Your task to perform on an android device: change the clock display to analog Image 0: 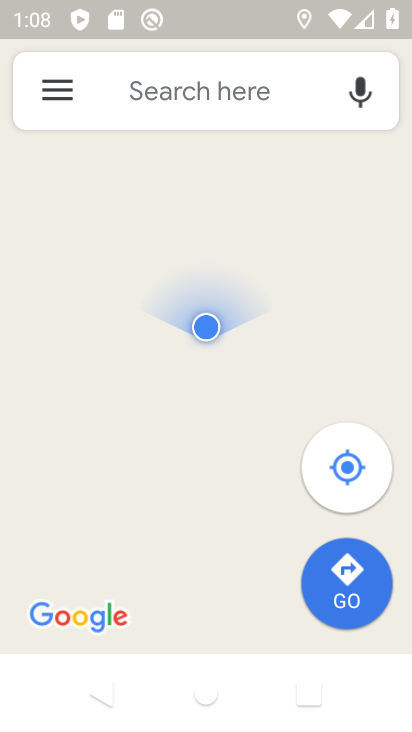
Step 0: press back button
Your task to perform on an android device: change the clock display to analog Image 1: 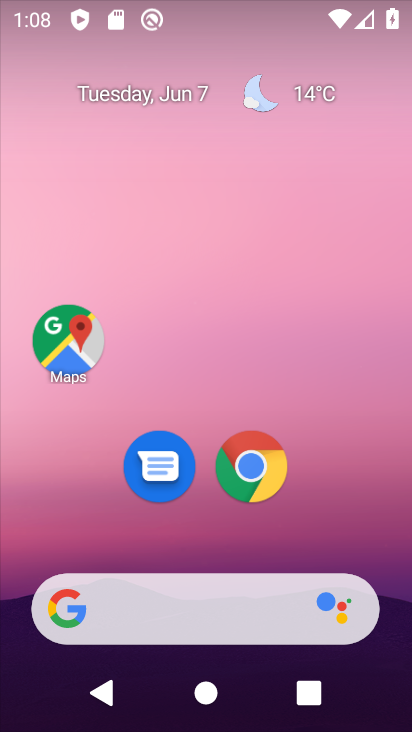
Step 1: drag from (188, 551) to (239, 126)
Your task to perform on an android device: change the clock display to analog Image 2: 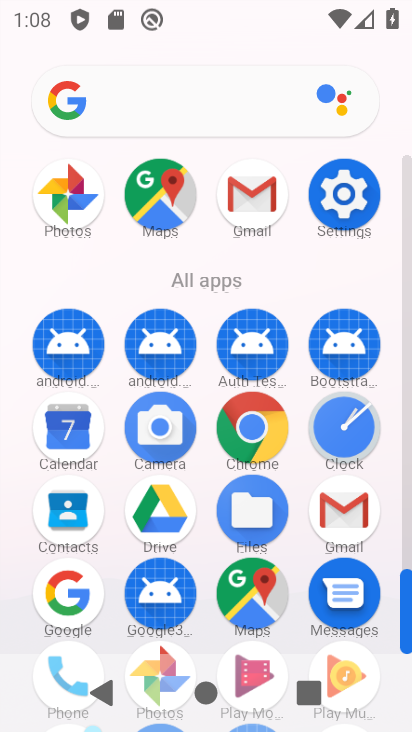
Step 2: click (340, 430)
Your task to perform on an android device: change the clock display to analog Image 3: 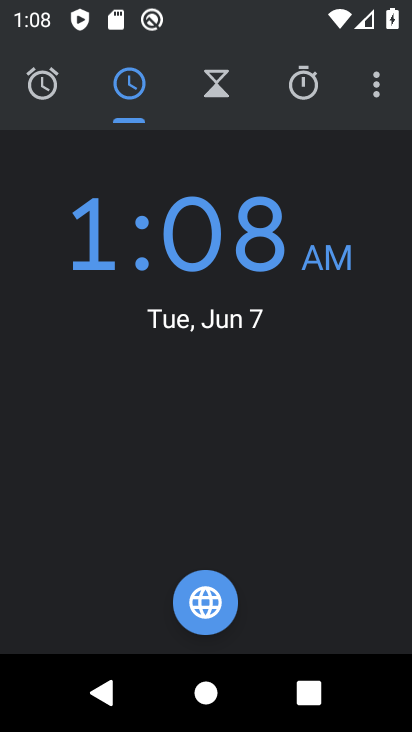
Step 3: click (370, 81)
Your task to perform on an android device: change the clock display to analog Image 4: 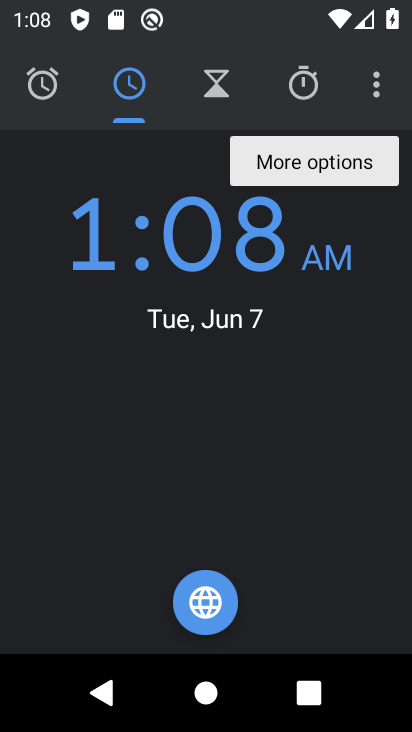
Step 4: click (371, 82)
Your task to perform on an android device: change the clock display to analog Image 5: 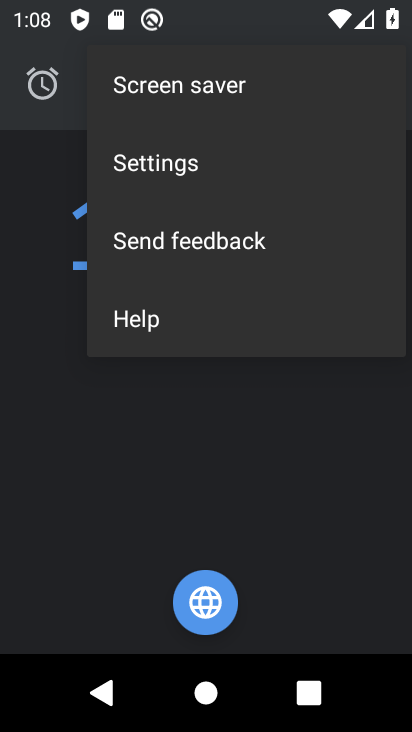
Step 5: click (190, 154)
Your task to perform on an android device: change the clock display to analog Image 6: 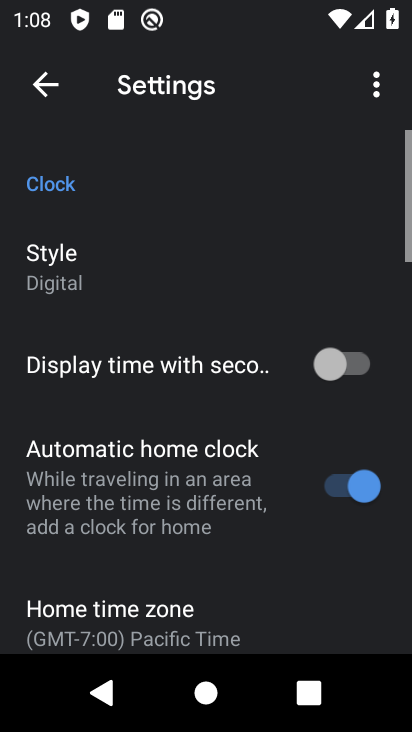
Step 6: click (70, 278)
Your task to perform on an android device: change the clock display to analog Image 7: 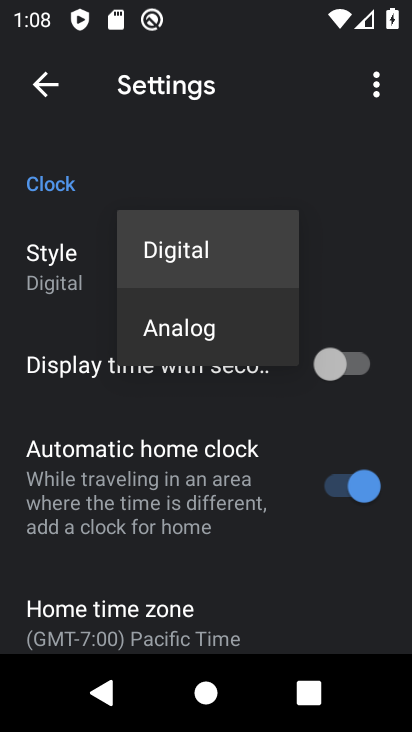
Step 7: click (183, 334)
Your task to perform on an android device: change the clock display to analog Image 8: 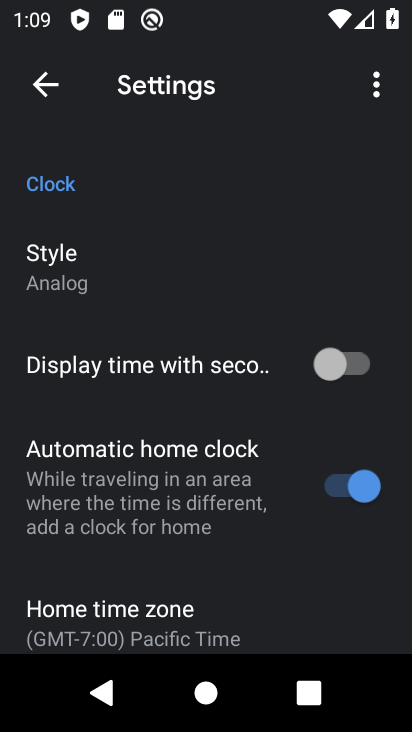
Step 8: task complete